Your task to perform on an android device: turn off translation in the chrome app Image 0: 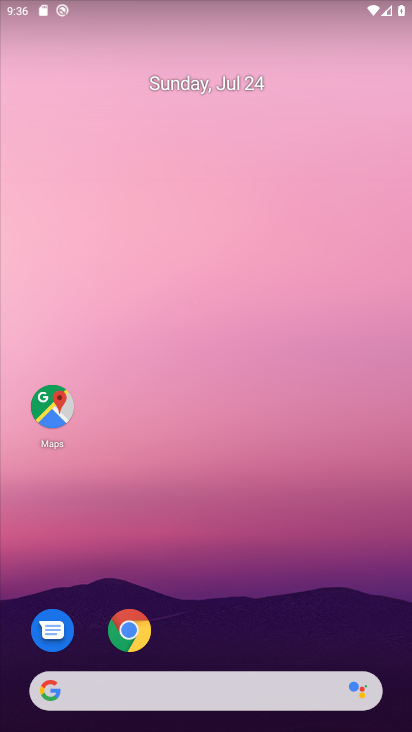
Step 0: click (144, 632)
Your task to perform on an android device: turn off translation in the chrome app Image 1: 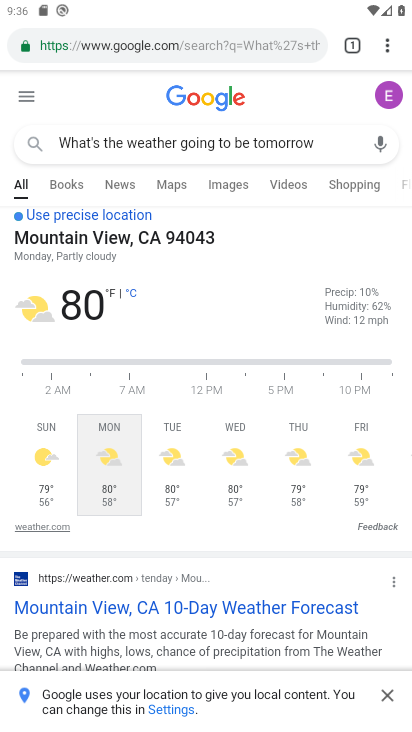
Step 1: click (386, 40)
Your task to perform on an android device: turn off translation in the chrome app Image 2: 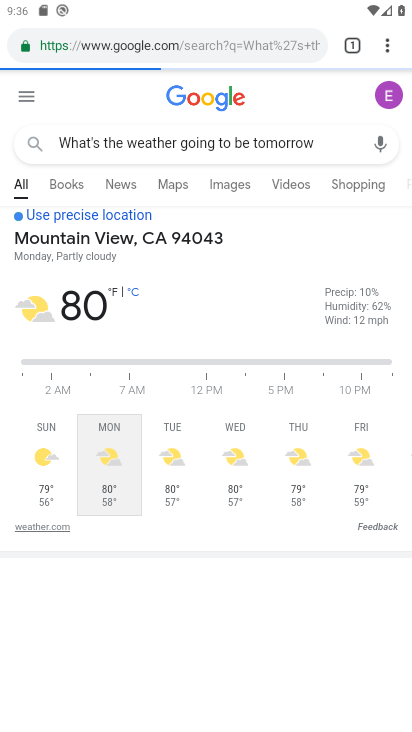
Step 2: click (386, 40)
Your task to perform on an android device: turn off translation in the chrome app Image 3: 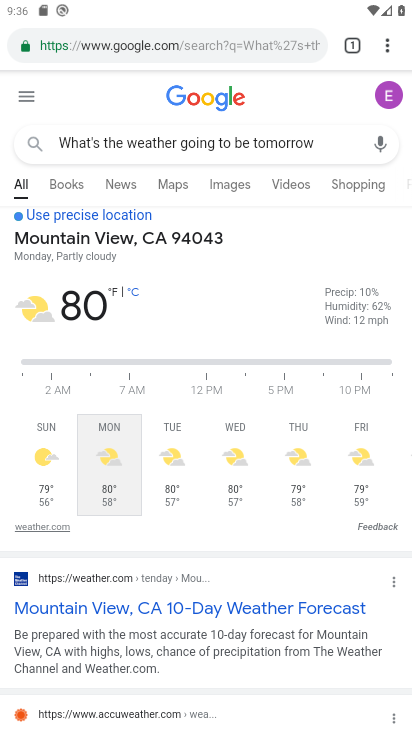
Step 3: click (386, 40)
Your task to perform on an android device: turn off translation in the chrome app Image 4: 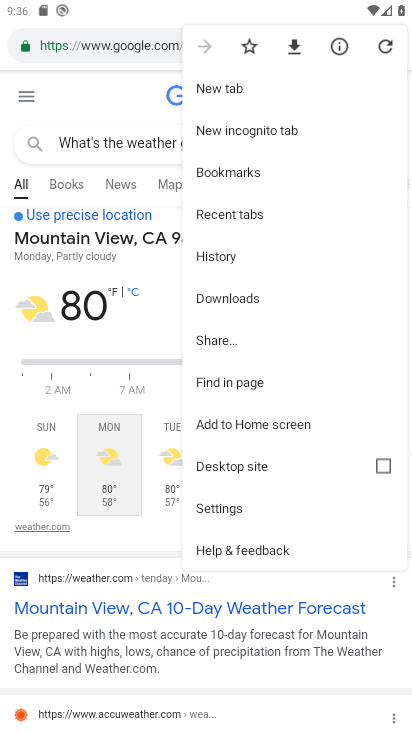
Step 4: click (232, 509)
Your task to perform on an android device: turn off translation in the chrome app Image 5: 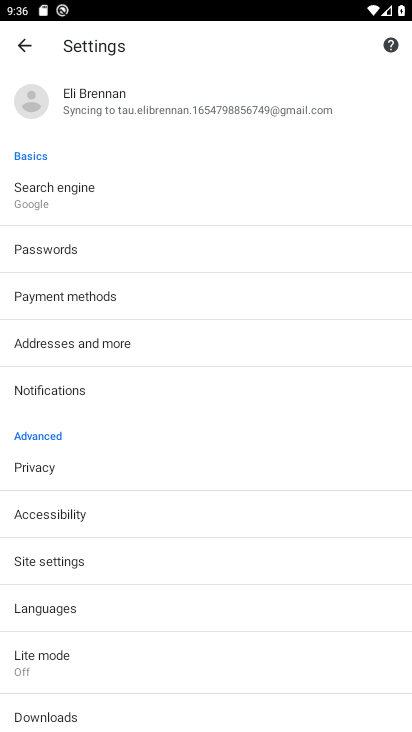
Step 5: click (88, 606)
Your task to perform on an android device: turn off translation in the chrome app Image 6: 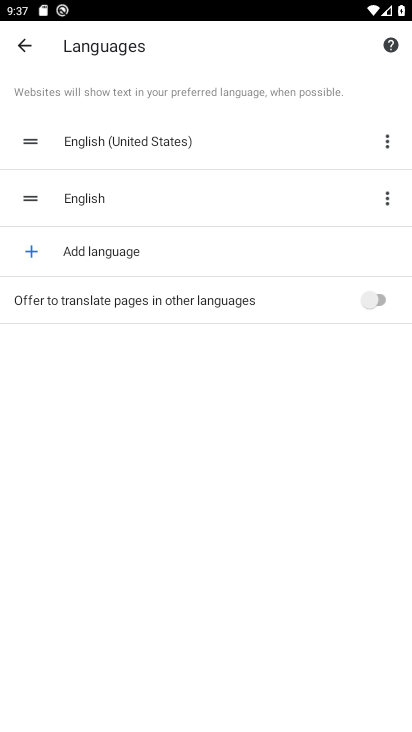
Step 6: task complete